Your task to perform on an android device: turn pop-ups off in chrome Image 0: 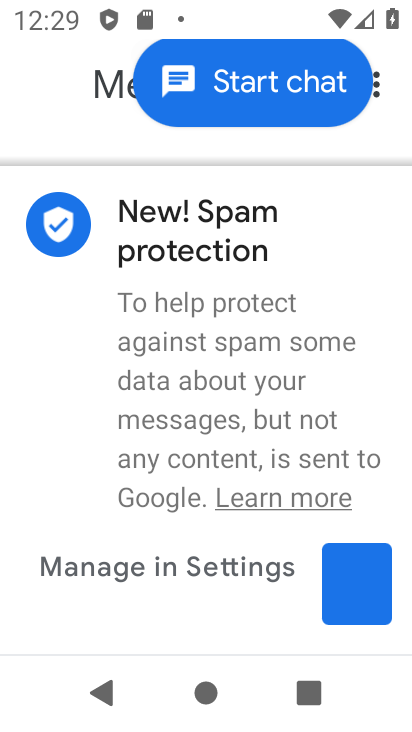
Step 0: press home button
Your task to perform on an android device: turn pop-ups off in chrome Image 1: 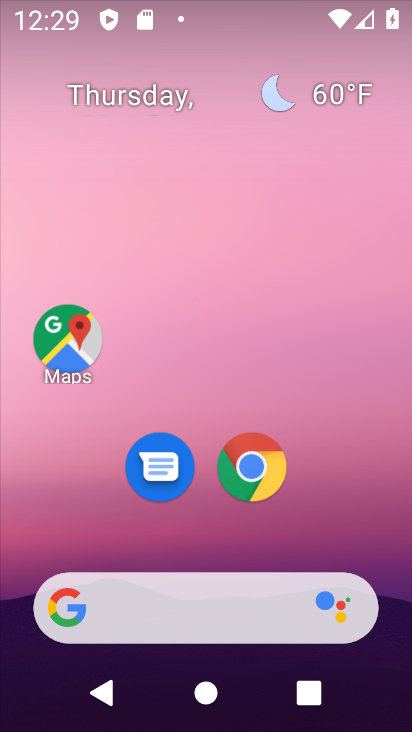
Step 1: drag from (192, 534) to (209, 3)
Your task to perform on an android device: turn pop-ups off in chrome Image 2: 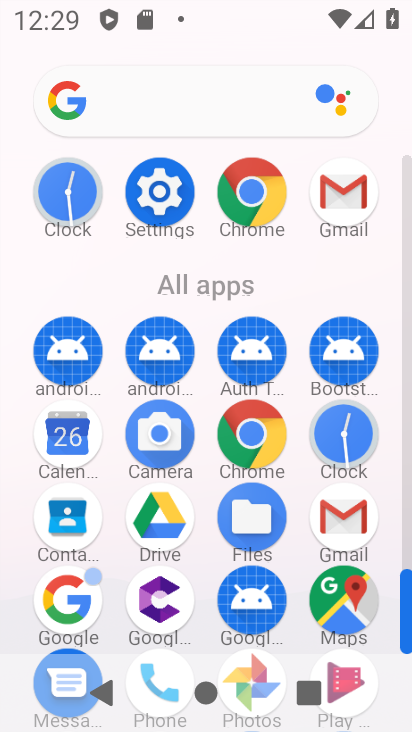
Step 2: drag from (219, 562) to (236, 285)
Your task to perform on an android device: turn pop-ups off in chrome Image 3: 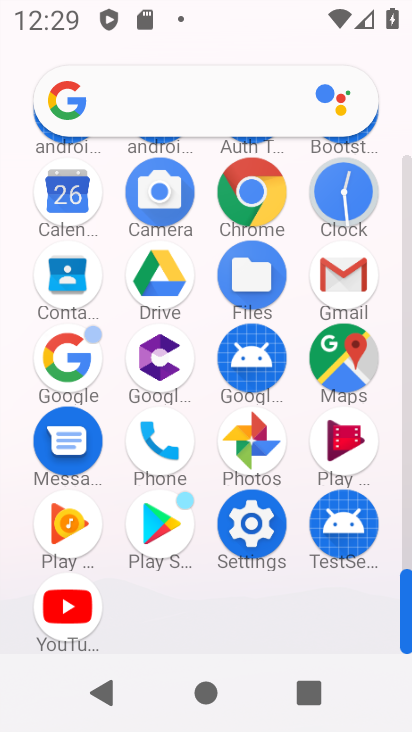
Step 3: click (263, 196)
Your task to perform on an android device: turn pop-ups off in chrome Image 4: 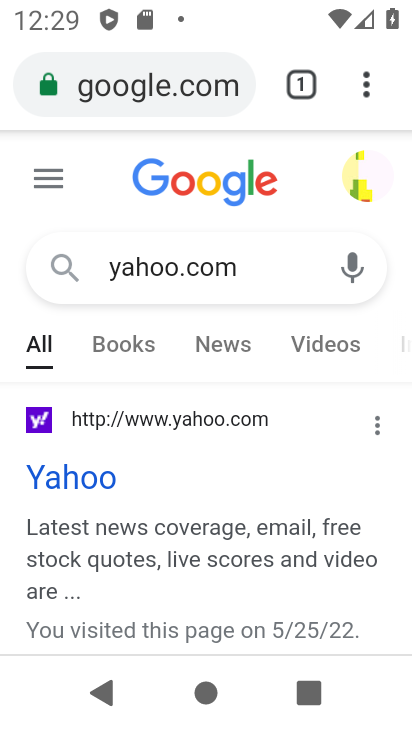
Step 4: click (366, 98)
Your task to perform on an android device: turn pop-ups off in chrome Image 5: 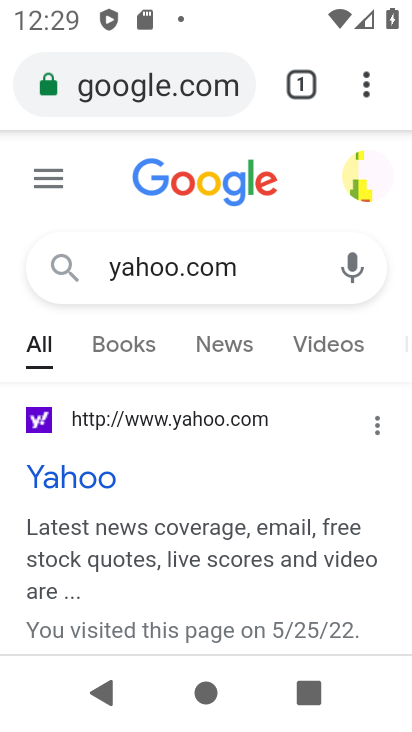
Step 5: click (375, 89)
Your task to perform on an android device: turn pop-ups off in chrome Image 6: 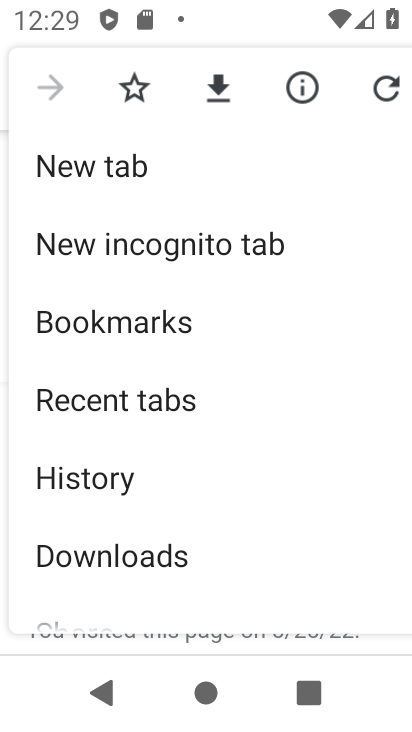
Step 6: drag from (161, 557) to (174, 210)
Your task to perform on an android device: turn pop-ups off in chrome Image 7: 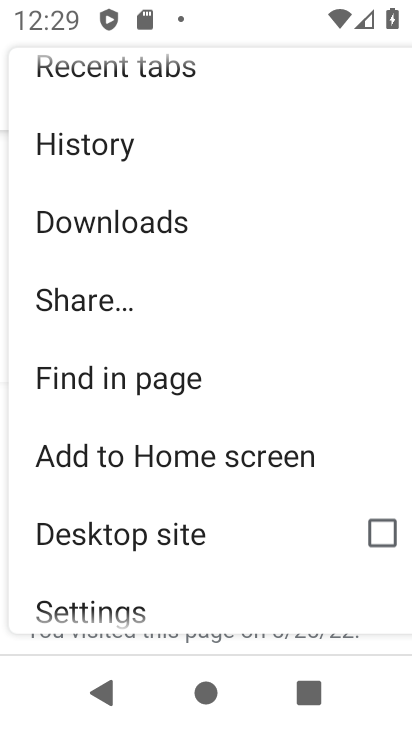
Step 7: drag from (156, 536) to (202, 212)
Your task to perform on an android device: turn pop-ups off in chrome Image 8: 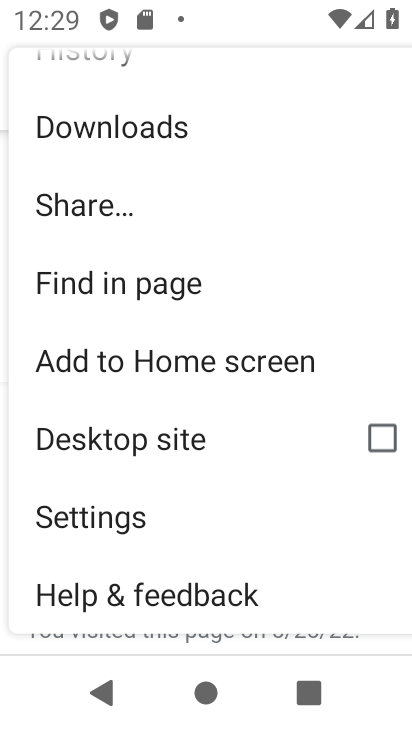
Step 8: click (109, 528)
Your task to perform on an android device: turn pop-ups off in chrome Image 9: 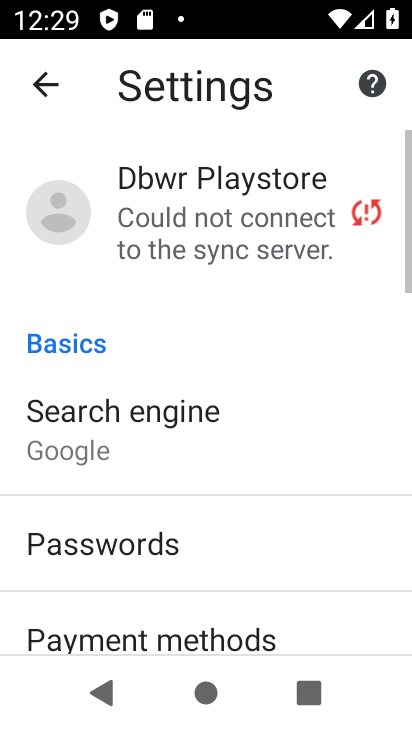
Step 9: drag from (208, 528) to (235, 224)
Your task to perform on an android device: turn pop-ups off in chrome Image 10: 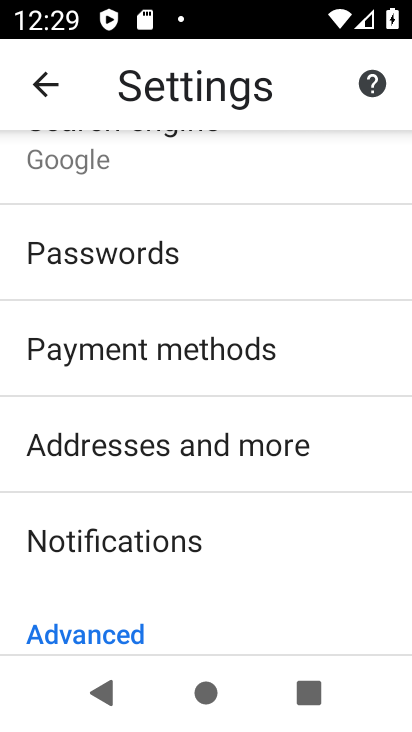
Step 10: drag from (234, 543) to (272, 265)
Your task to perform on an android device: turn pop-ups off in chrome Image 11: 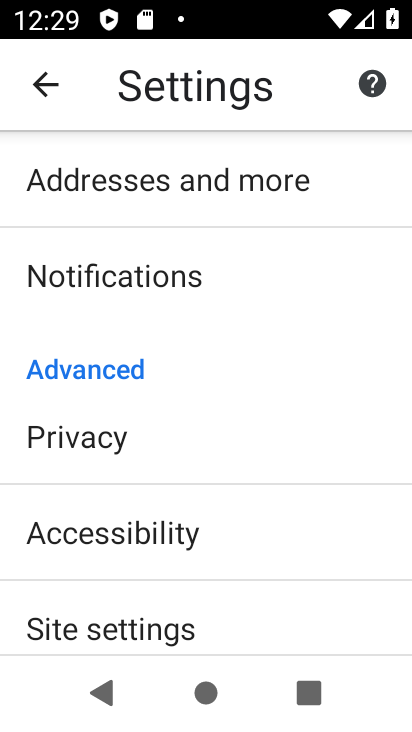
Step 11: drag from (233, 546) to (242, 207)
Your task to perform on an android device: turn pop-ups off in chrome Image 12: 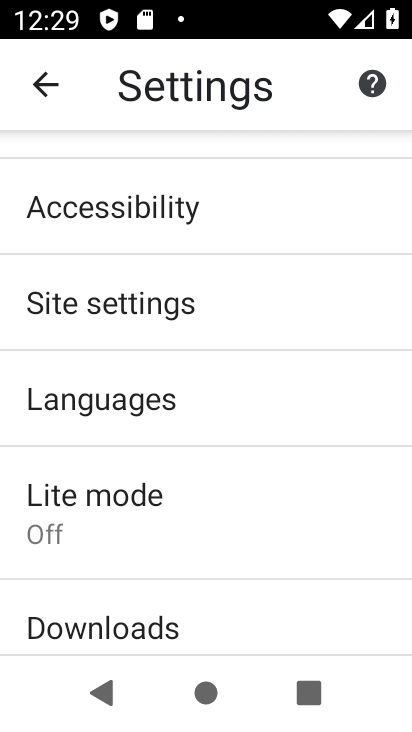
Step 12: click (168, 306)
Your task to perform on an android device: turn pop-ups off in chrome Image 13: 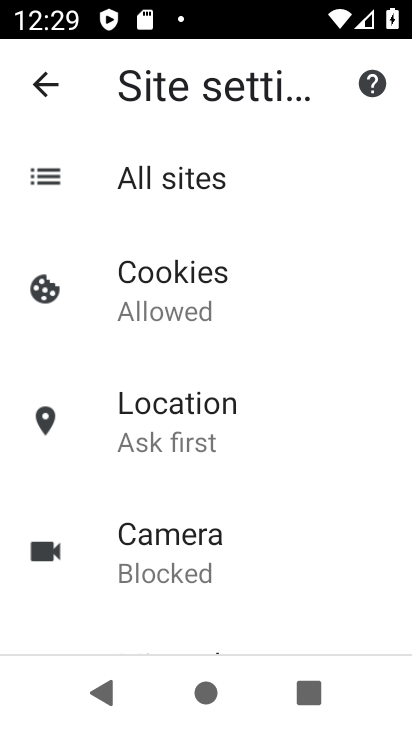
Step 13: drag from (204, 534) to (200, 306)
Your task to perform on an android device: turn pop-ups off in chrome Image 14: 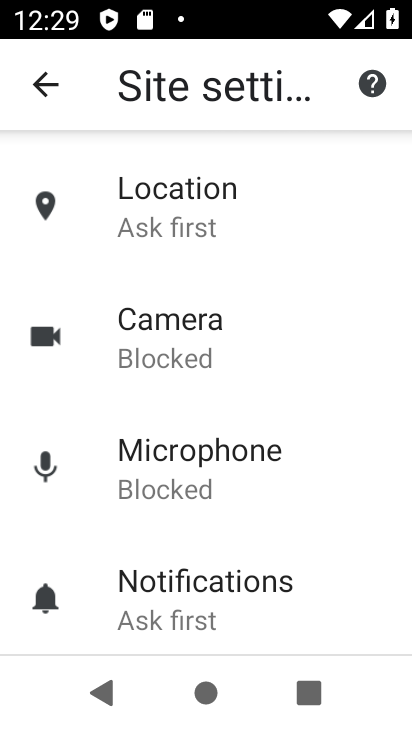
Step 14: drag from (160, 524) to (214, 267)
Your task to perform on an android device: turn pop-ups off in chrome Image 15: 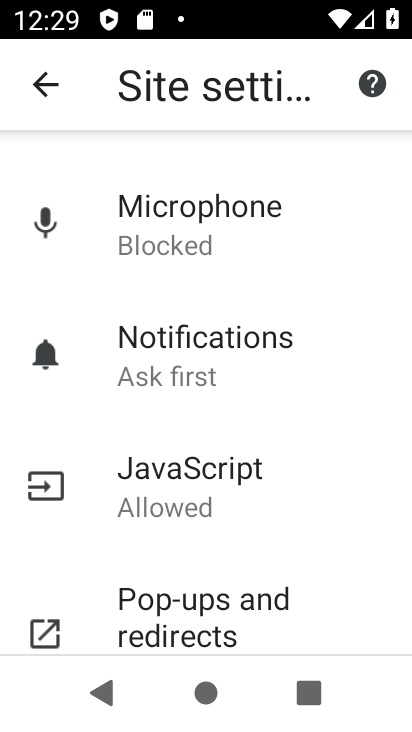
Step 15: click (216, 625)
Your task to perform on an android device: turn pop-ups off in chrome Image 16: 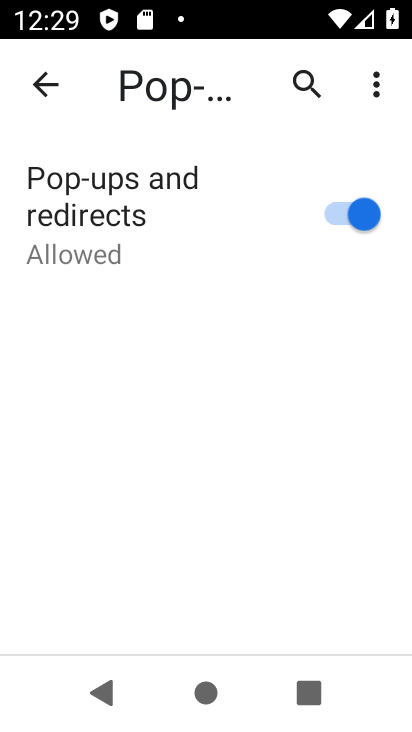
Step 16: click (350, 196)
Your task to perform on an android device: turn pop-ups off in chrome Image 17: 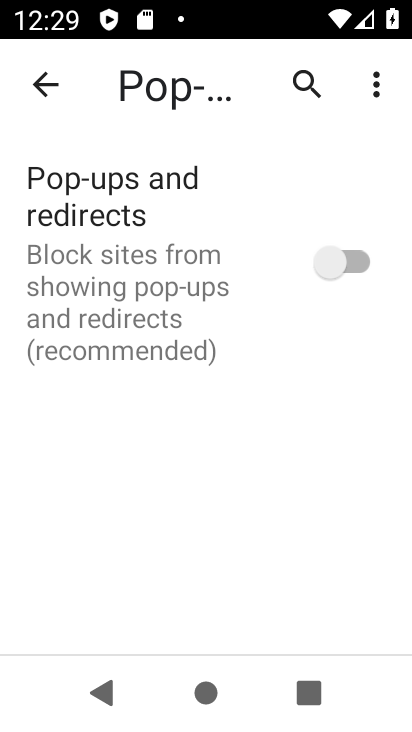
Step 17: task complete